Your task to perform on an android device: check out phone information Image 0: 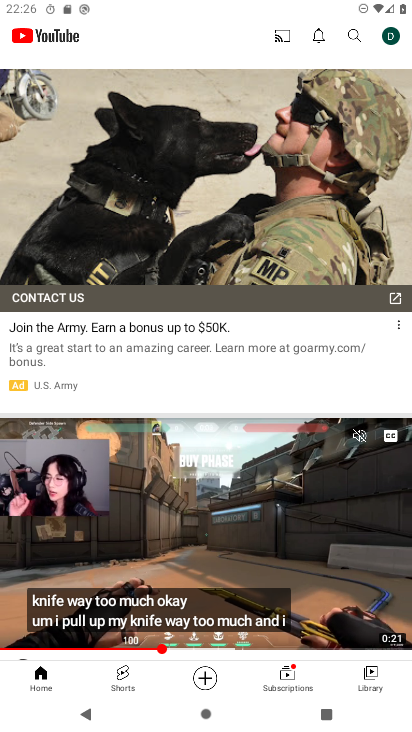
Step 0: press home button
Your task to perform on an android device: check out phone information Image 1: 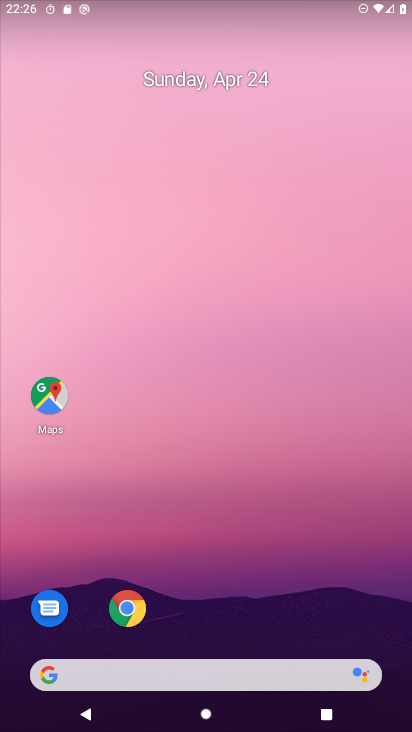
Step 1: drag from (246, 483) to (282, 42)
Your task to perform on an android device: check out phone information Image 2: 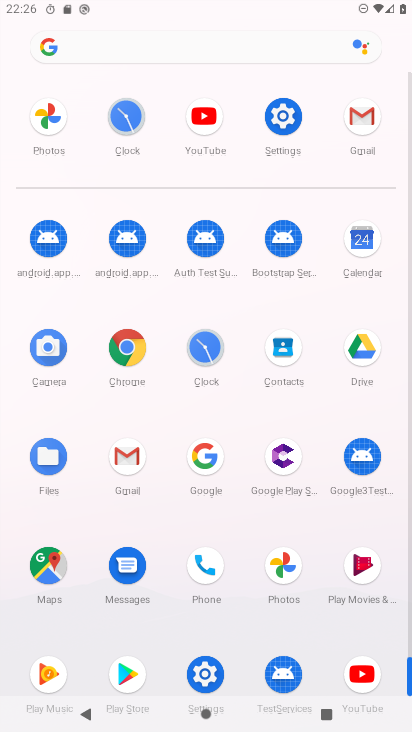
Step 2: click (202, 558)
Your task to perform on an android device: check out phone information Image 3: 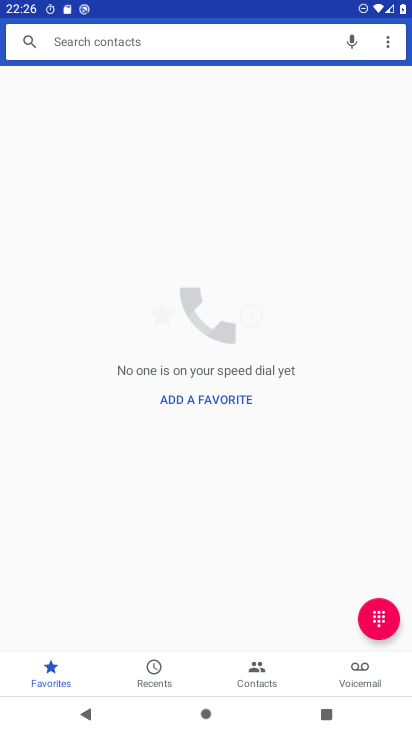
Step 3: click (386, 37)
Your task to perform on an android device: check out phone information Image 4: 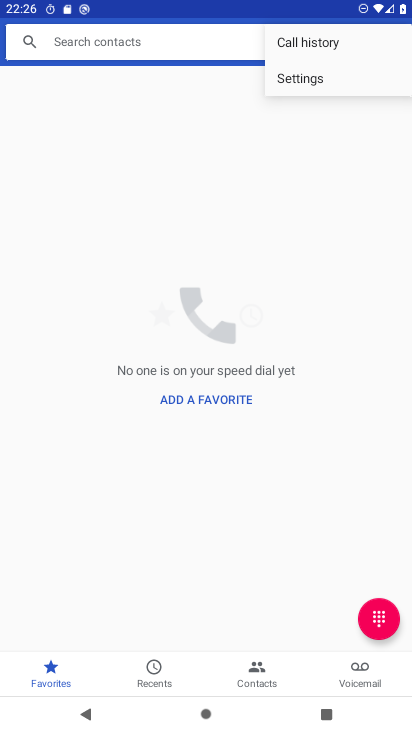
Step 4: click (351, 79)
Your task to perform on an android device: check out phone information Image 5: 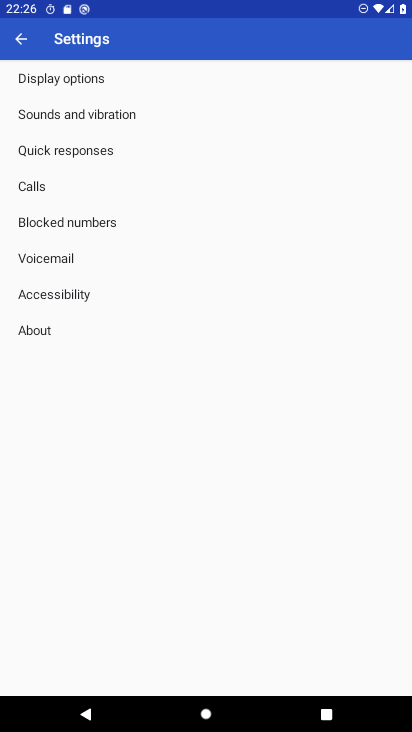
Step 5: click (52, 328)
Your task to perform on an android device: check out phone information Image 6: 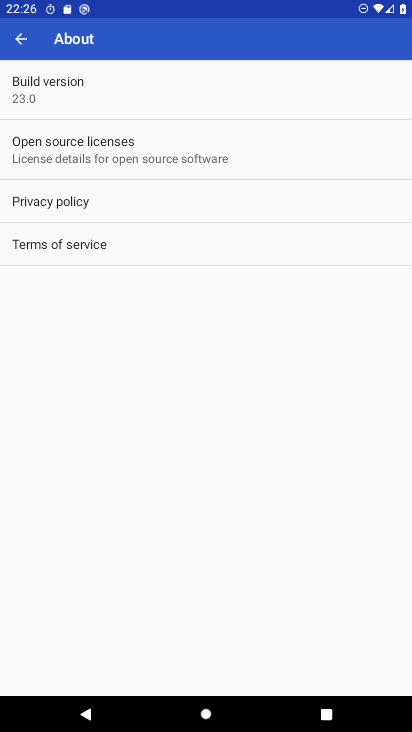
Step 6: task complete